Your task to perform on an android device: change alarm snooze length Image 0: 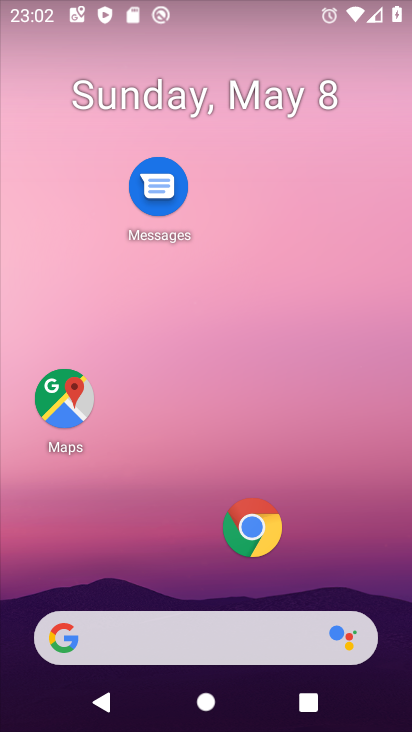
Step 0: drag from (179, 543) to (222, 63)
Your task to perform on an android device: change alarm snooze length Image 1: 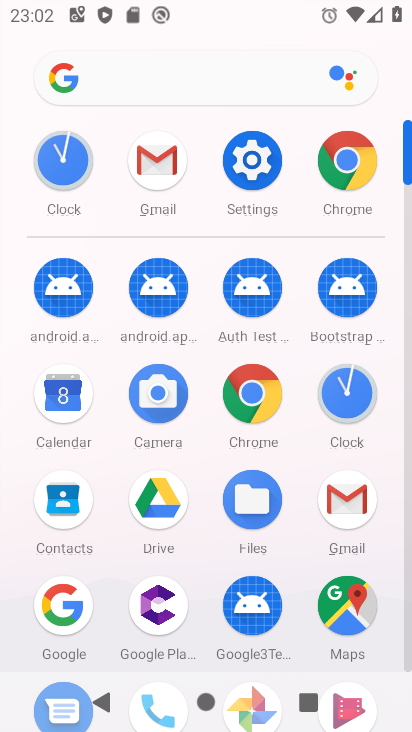
Step 1: click (340, 392)
Your task to perform on an android device: change alarm snooze length Image 2: 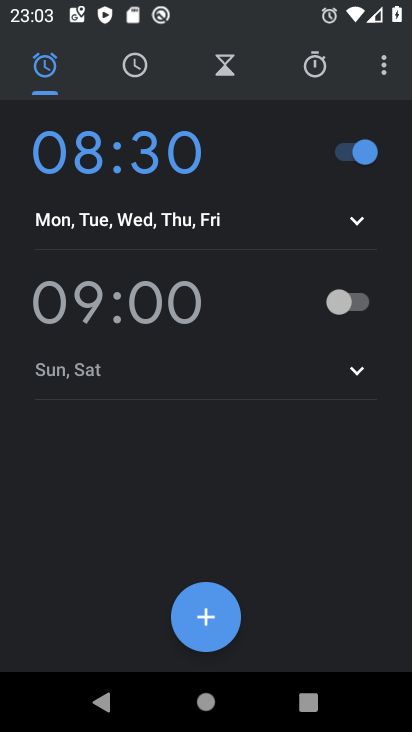
Step 2: click (368, 65)
Your task to perform on an android device: change alarm snooze length Image 3: 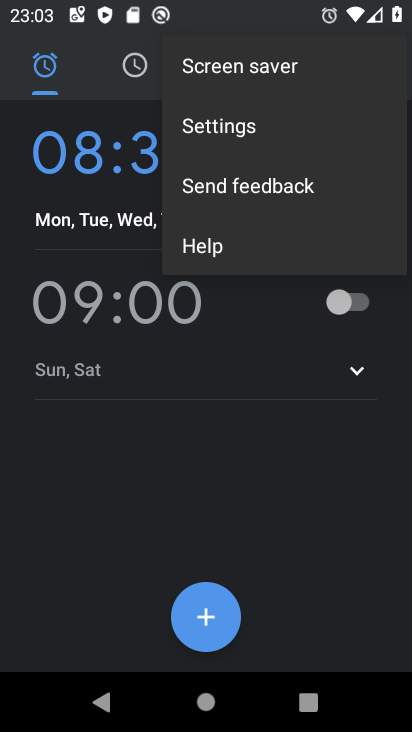
Step 3: click (245, 126)
Your task to perform on an android device: change alarm snooze length Image 4: 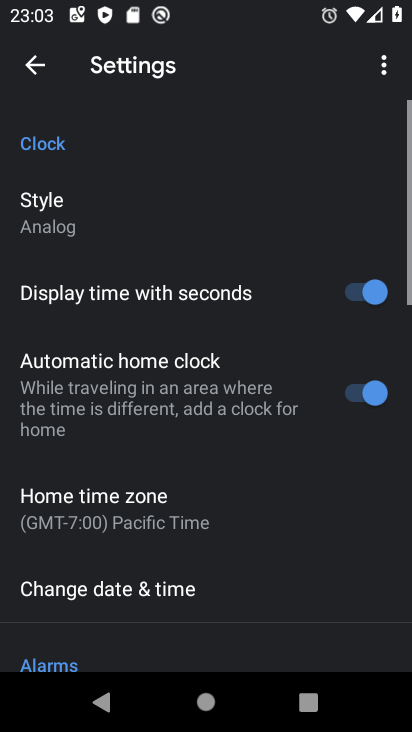
Step 4: drag from (195, 555) to (265, 55)
Your task to perform on an android device: change alarm snooze length Image 5: 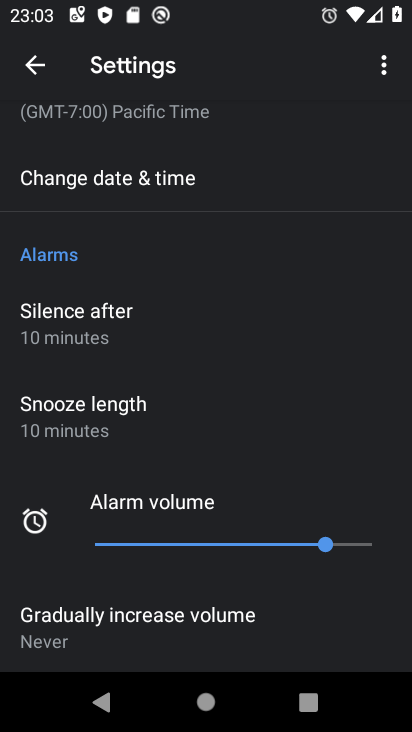
Step 5: click (75, 425)
Your task to perform on an android device: change alarm snooze length Image 6: 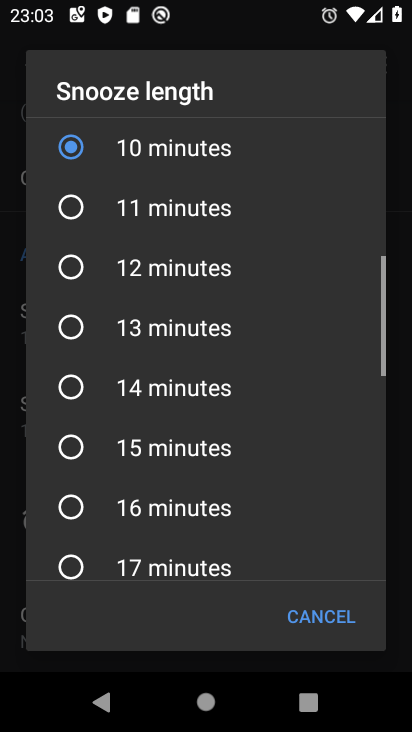
Step 6: click (65, 336)
Your task to perform on an android device: change alarm snooze length Image 7: 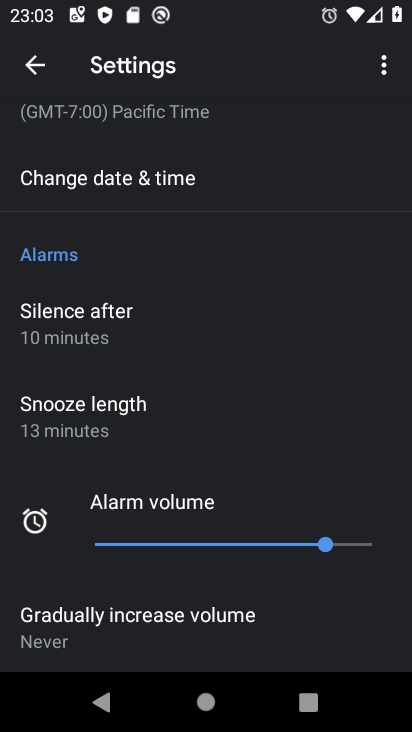
Step 7: task complete